Your task to perform on an android device: set default search engine in the chrome app Image 0: 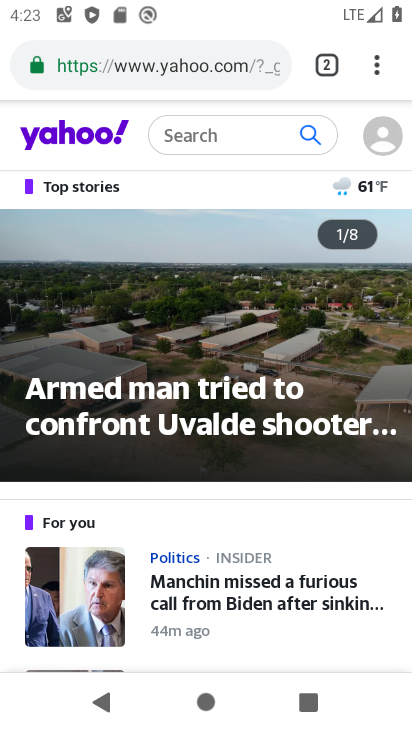
Step 0: press home button
Your task to perform on an android device: set default search engine in the chrome app Image 1: 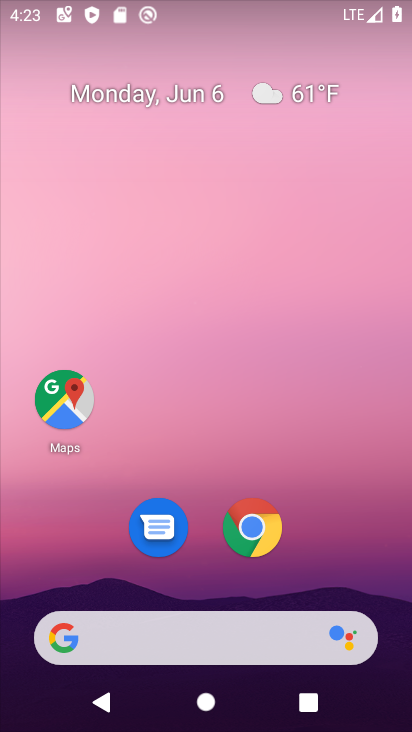
Step 1: click (251, 531)
Your task to perform on an android device: set default search engine in the chrome app Image 2: 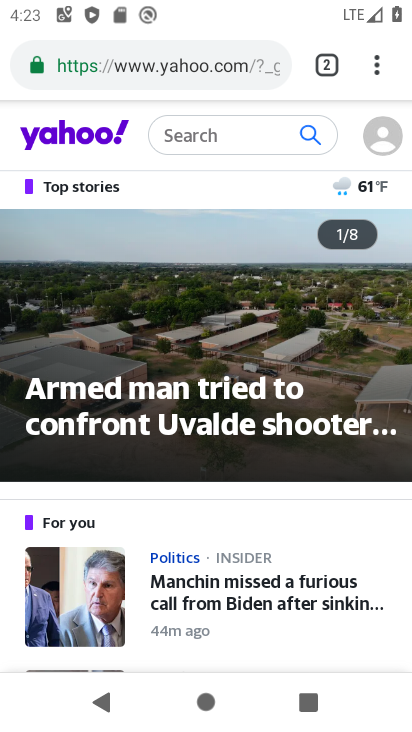
Step 2: click (251, 531)
Your task to perform on an android device: set default search engine in the chrome app Image 3: 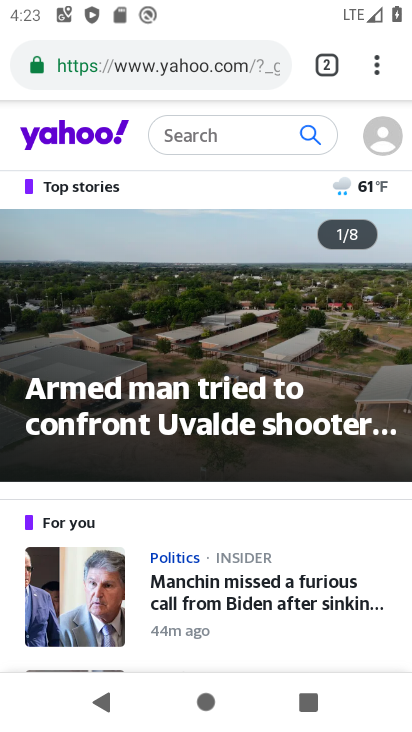
Step 3: click (374, 65)
Your task to perform on an android device: set default search engine in the chrome app Image 4: 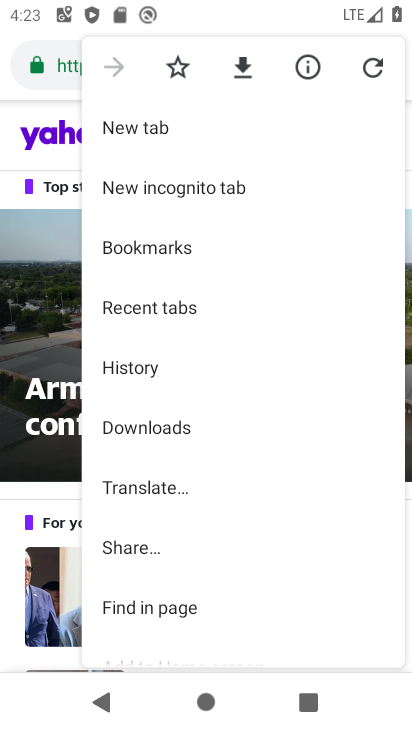
Step 4: drag from (274, 553) to (270, 342)
Your task to perform on an android device: set default search engine in the chrome app Image 5: 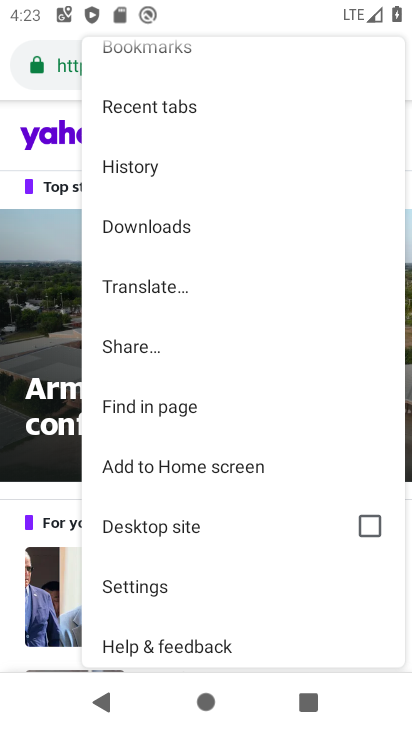
Step 5: click (159, 586)
Your task to perform on an android device: set default search engine in the chrome app Image 6: 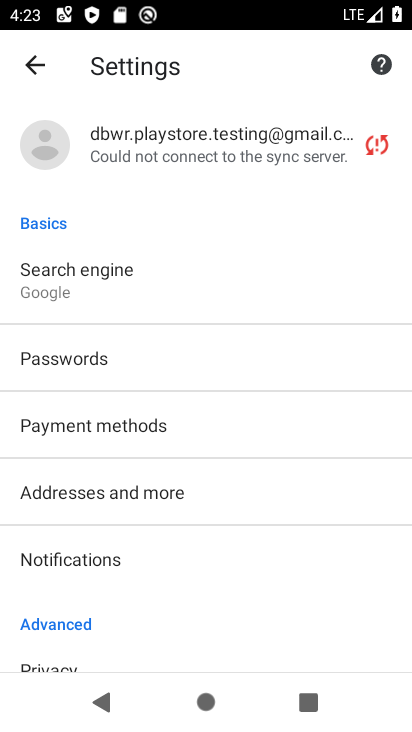
Step 6: click (137, 284)
Your task to perform on an android device: set default search engine in the chrome app Image 7: 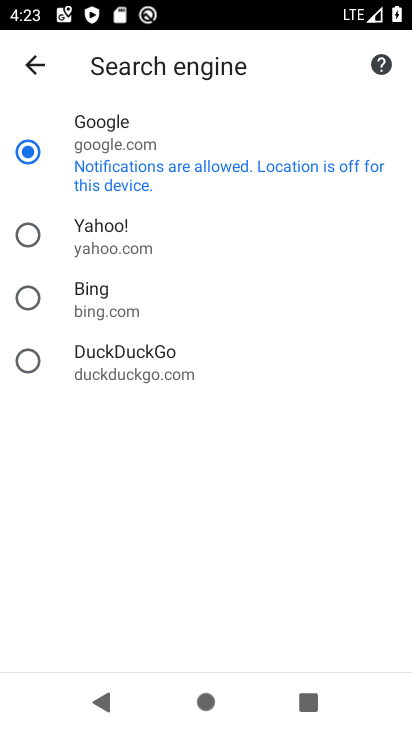
Step 7: click (61, 299)
Your task to perform on an android device: set default search engine in the chrome app Image 8: 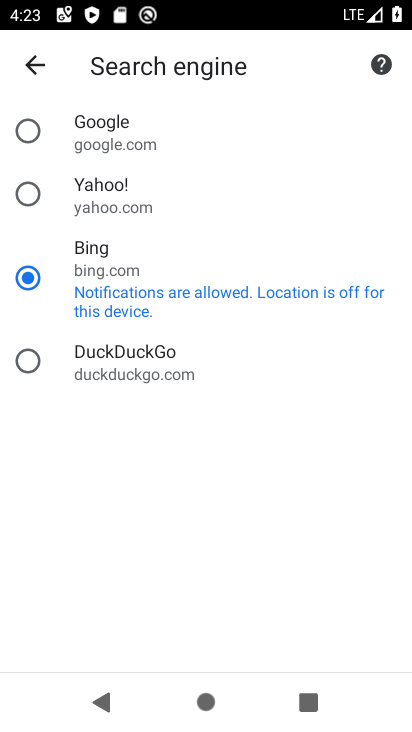
Step 8: task complete